Your task to perform on an android device: turn on the 12-hour format for clock Image 0: 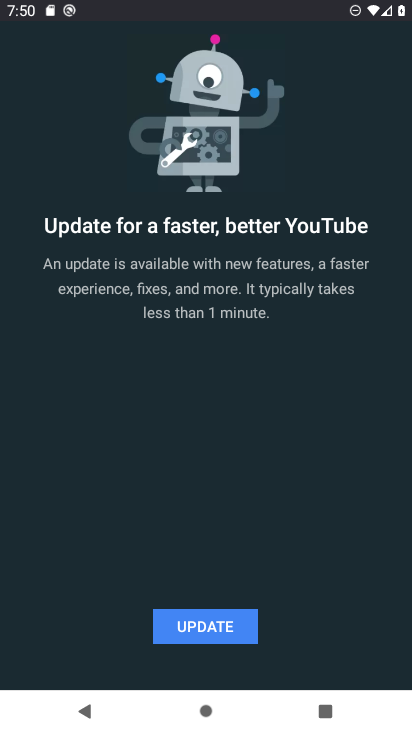
Step 0: press home button
Your task to perform on an android device: turn on the 12-hour format for clock Image 1: 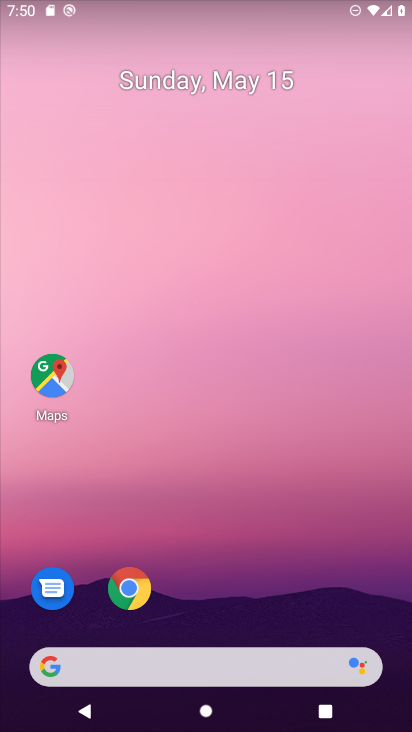
Step 1: drag from (217, 622) to (218, 89)
Your task to perform on an android device: turn on the 12-hour format for clock Image 2: 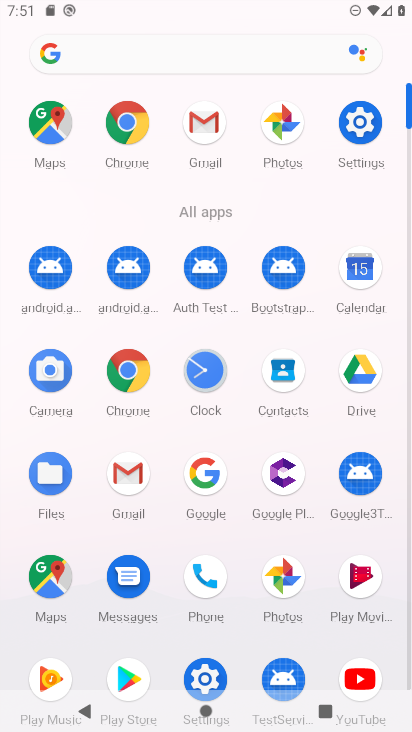
Step 2: click (202, 365)
Your task to perform on an android device: turn on the 12-hour format for clock Image 3: 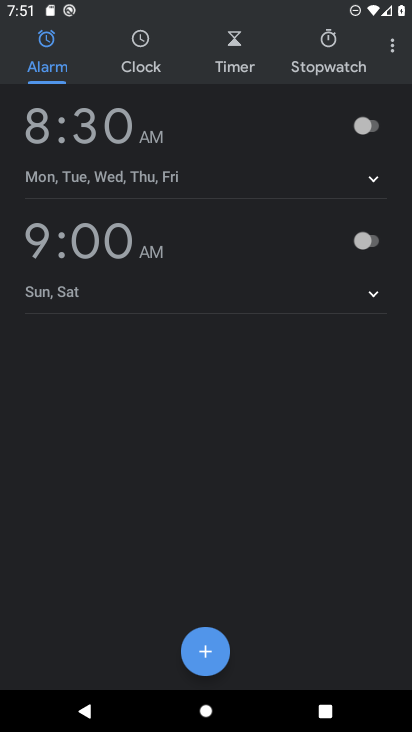
Step 3: click (393, 42)
Your task to perform on an android device: turn on the 12-hour format for clock Image 4: 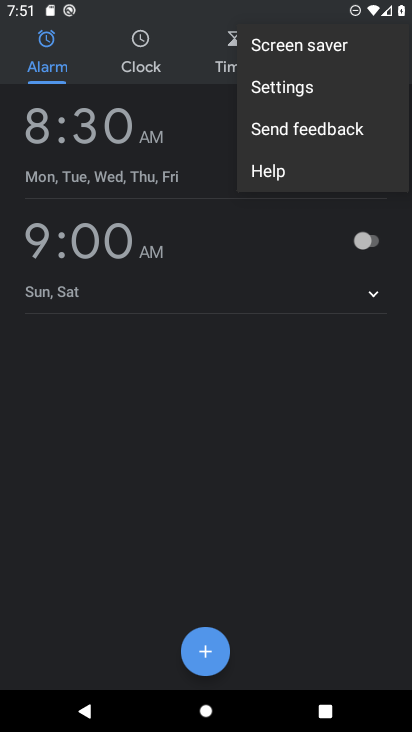
Step 4: click (328, 88)
Your task to perform on an android device: turn on the 12-hour format for clock Image 5: 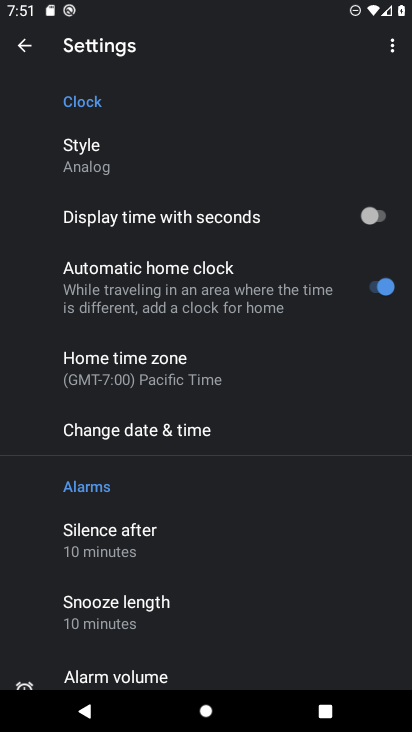
Step 5: click (223, 436)
Your task to perform on an android device: turn on the 12-hour format for clock Image 6: 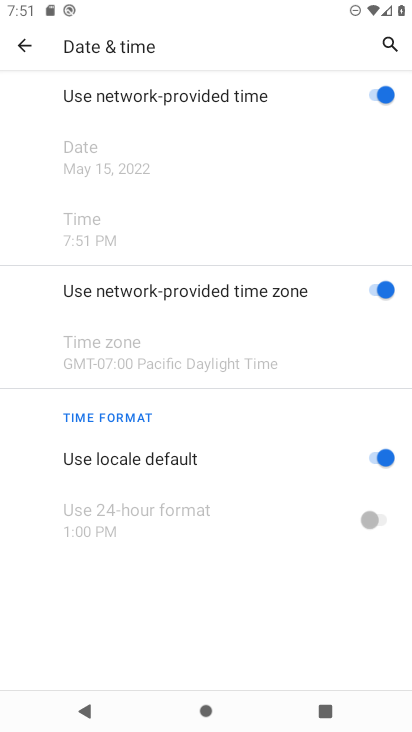
Step 6: task complete